Your task to perform on an android device: Play the last video I watched on Youtube Image 0: 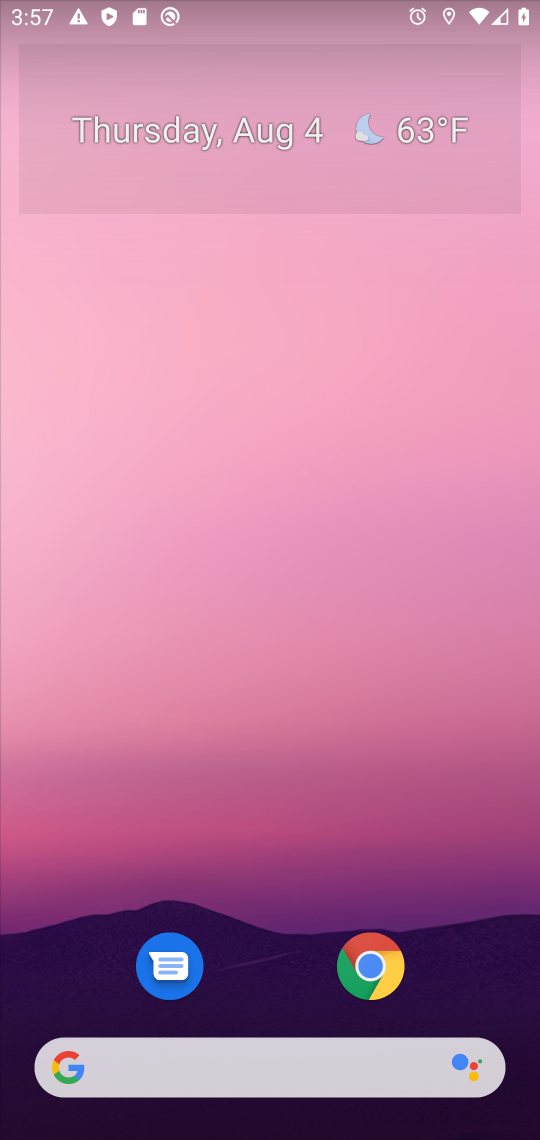
Step 0: press home button
Your task to perform on an android device: Play the last video I watched on Youtube Image 1: 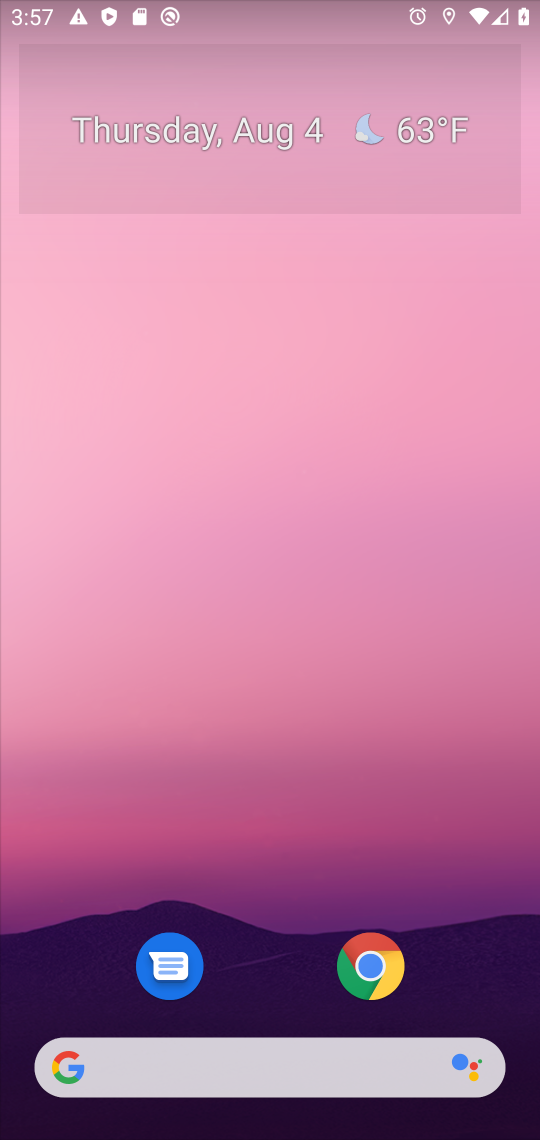
Step 1: drag from (279, 1003) to (151, 103)
Your task to perform on an android device: Play the last video I watched on Youtube Image 2: 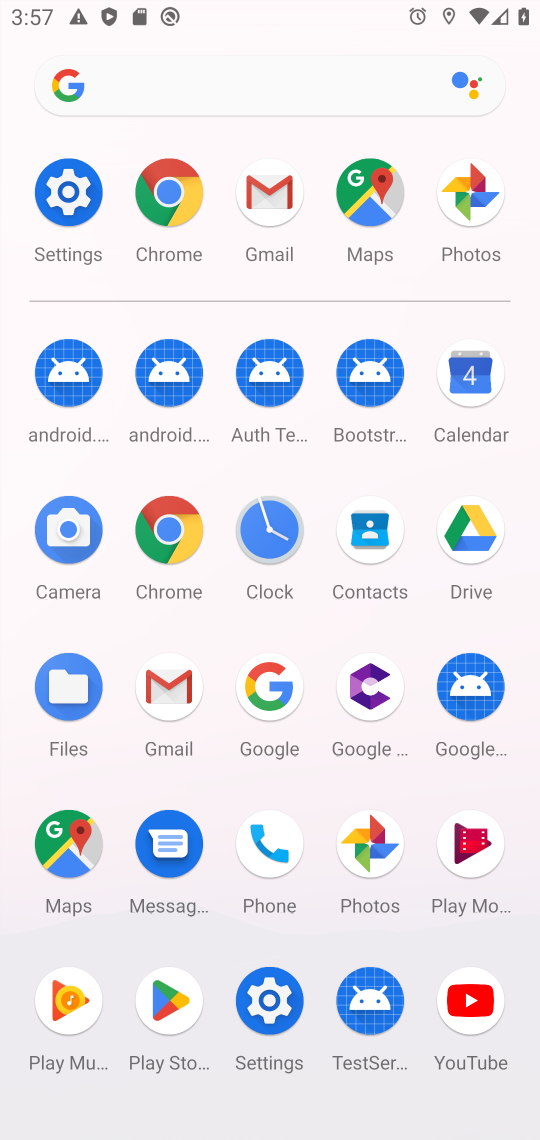
Step 2: click (450, 1025)
Your task to perform on an android device: Play the last video I watched on Youtube Image 3: 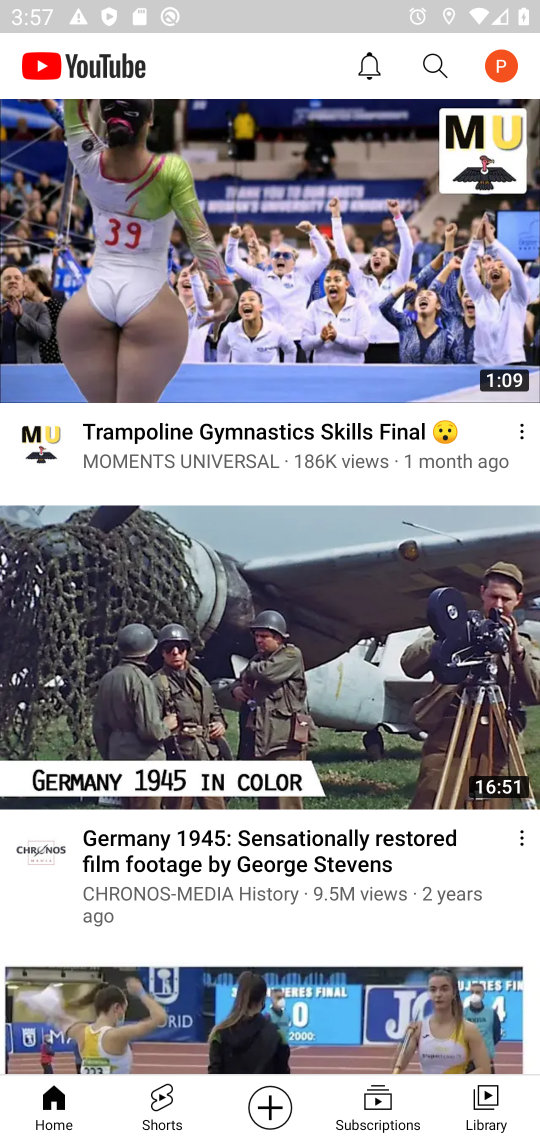
Step 3: click (485, 1098)
Your task to perform on an android device: Play the last video I watched on Youtube Image 4: 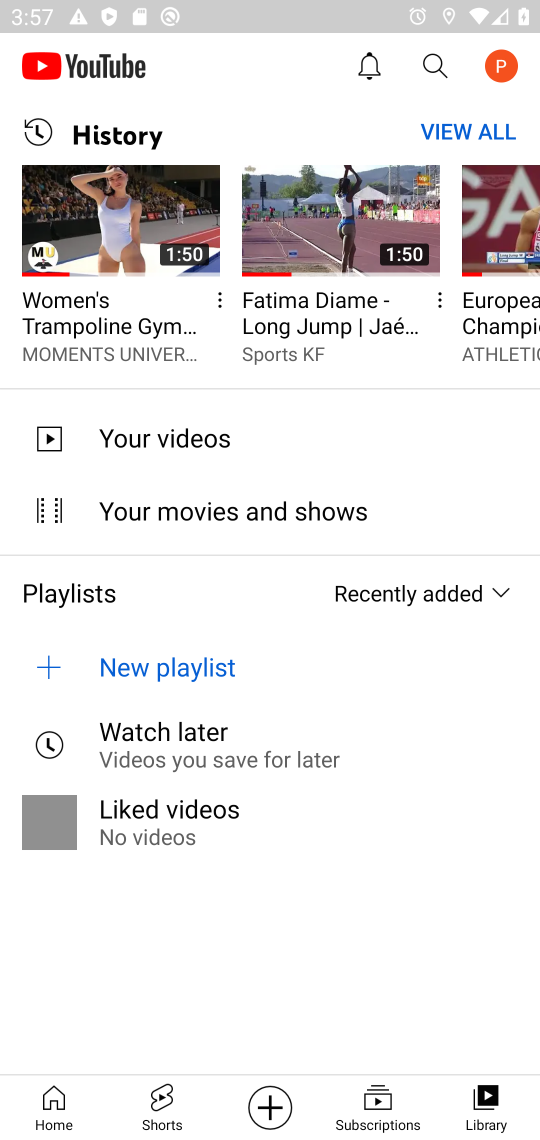
Step 4: click (109, 213)
Your task to perform on an android device: Play the last video I watched on Youtube Image 5: 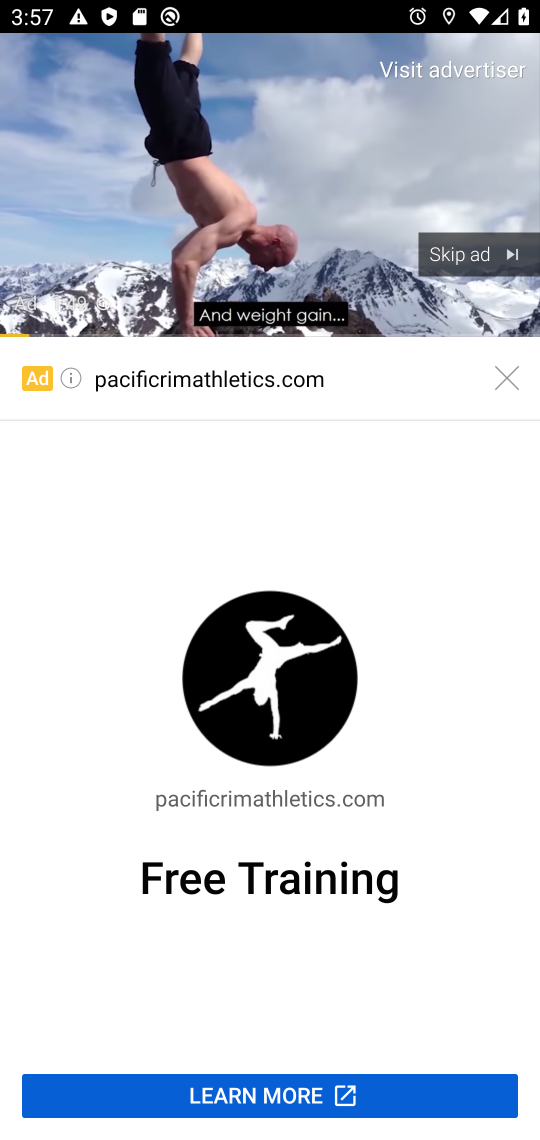
Step 5: click (448, 268)
Your task to perform on an android device: Play the last video I watched on Youtube Image 6: 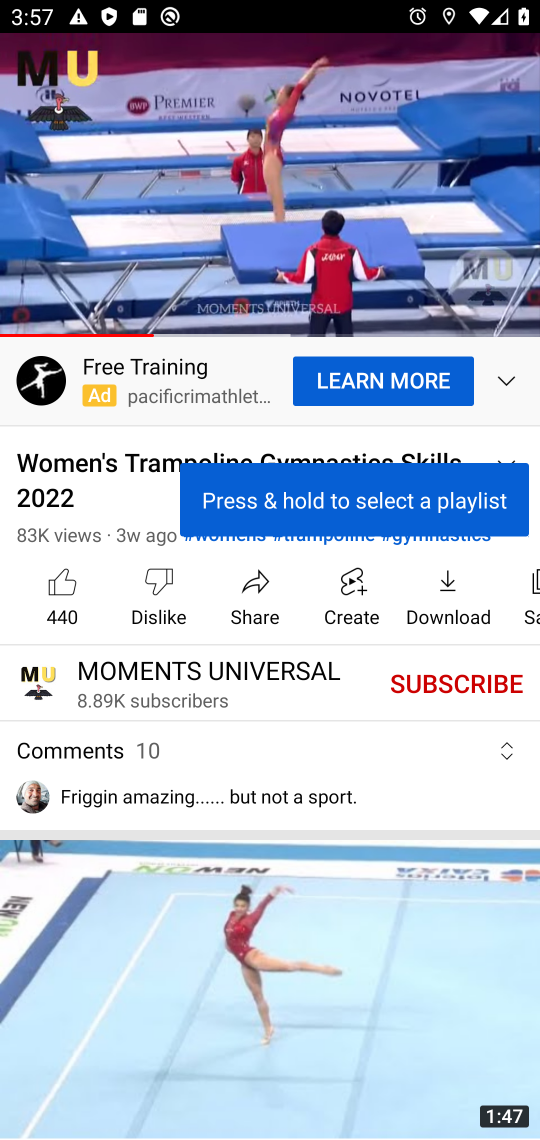
Step 6: task complete